Your task to perform on an android device: Find coffee shops on Maps Image 0: 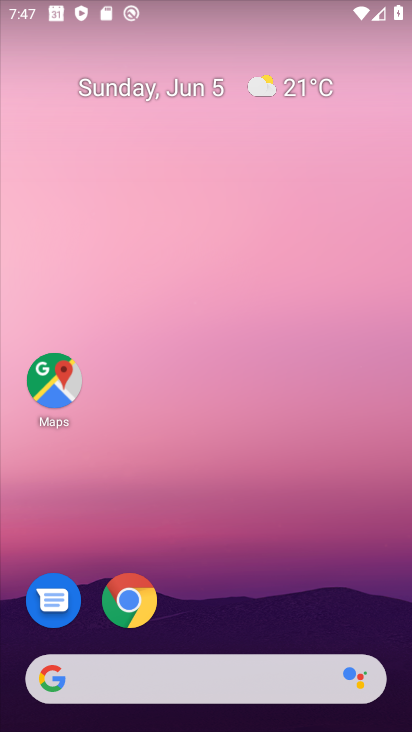
Step 0: click (63, 399)
Your task to perform on an android device: Find coffee shops on Maps Image 1: 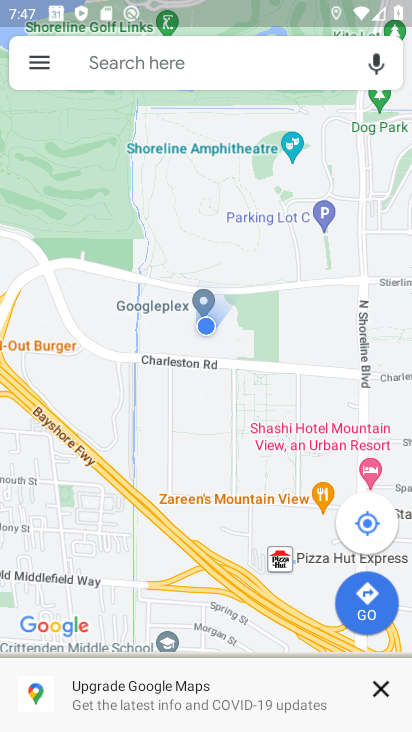
Step 1: click (265, 62)
Your task to perform on an android device: Find coffee shops on Maps Image 2: 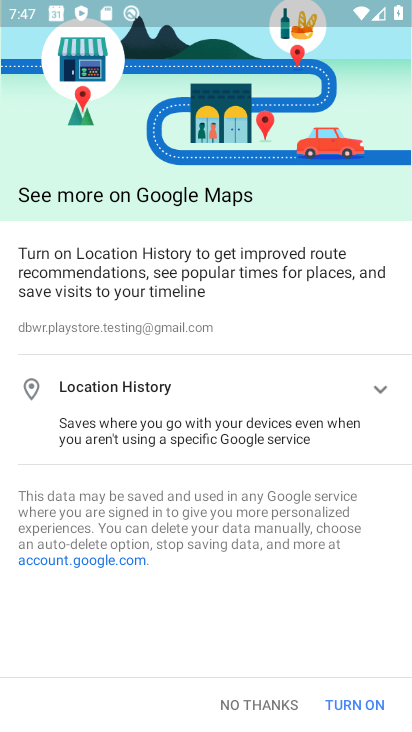
Step 2: click (254, 709)
Your task to perform on an android device: Find coffee shops on Maps Image 3: 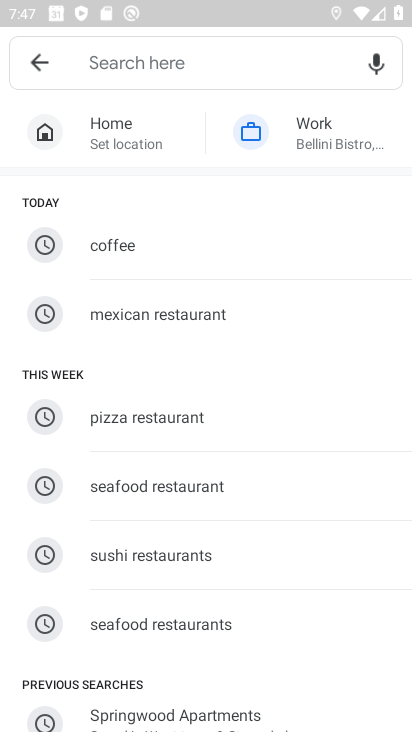
Step 3: click (180, 65)
Your task to perform on an android device: Find coffee shops on Maps Image 4: 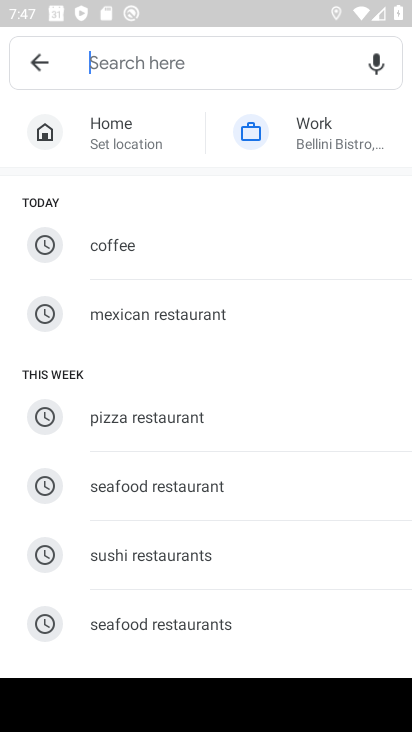
Step 4: type "coffee shops"
Your task to perform on an android device: Find coffee shops on Maps Image 5: 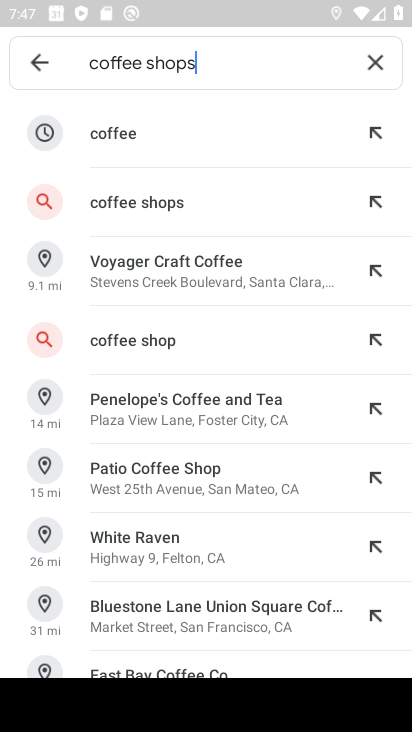
Step 5: click (156, 213)
Your task to perform on an android device: Find coffee shops on Maps Image 6: 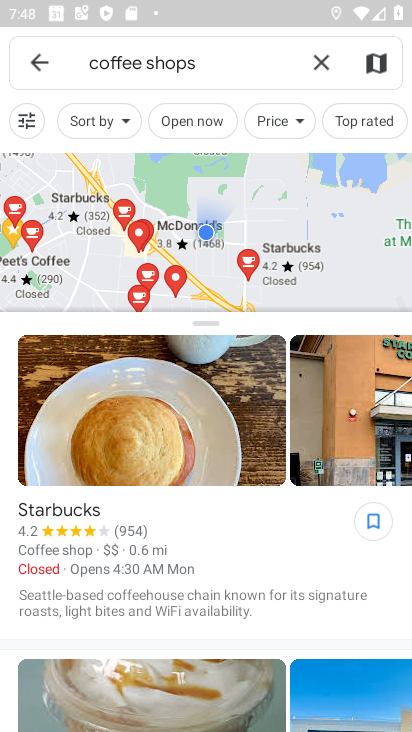
Step 6: task complete